Your task to perform on an android device: Toggle the flashlight Image 0: 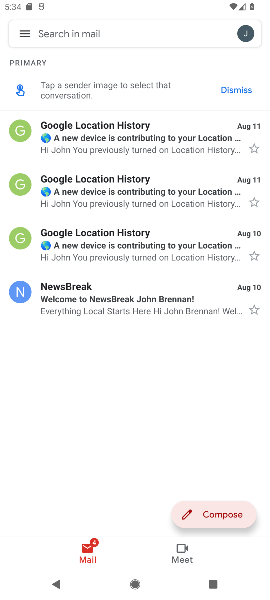
Step 0: press home button
Your task to perform on an android device: Toggle the flashlight Image 1: 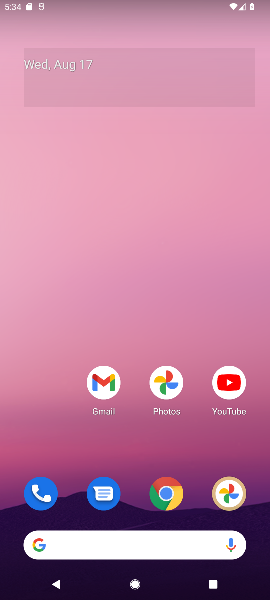
Step 1: drag from (125, 16) to (33, 566)
Your task to perform on an android device: Toggle the flashlight Image 2: 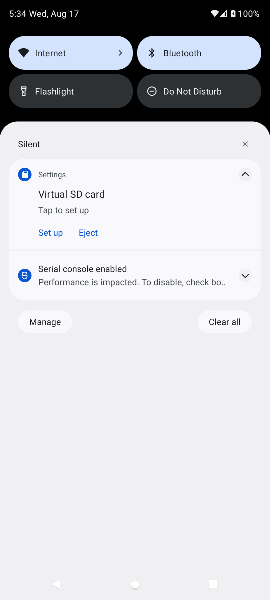
Step 2: click (50, 103)
Your task to perform on an android device: Toggle the flashlight Image 3: 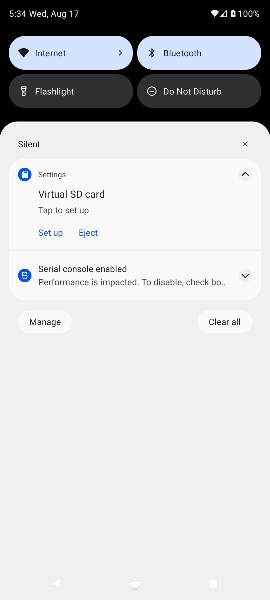
Step 3: task complete